Your task to perform on an android device: Search for bose soundlink mini on ebay, select the first entry, and add it to the cart. Image 0: 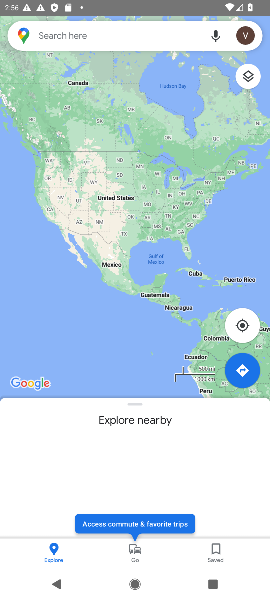
Step 0: press home button
Your task to perform on an android device: Search for bose soundlink mini on ebay, select the first entry, and add it to the cart. Image 1: 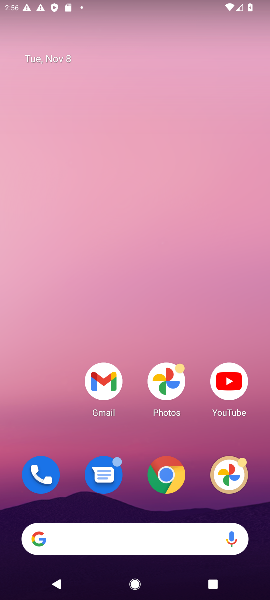
Step 1: drag from (107, 521) to (116, 28)
Your task to perform on an android device: Search for bose soundlink mini on ebay, select the first entry, and add it to the cart. Image 2: 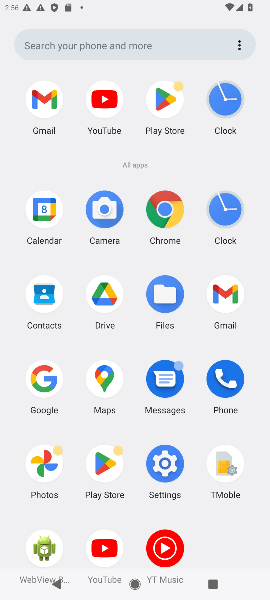
Step 2: click (45, 383)
Your task to perform on an android device: Search for bose soundlink mini on ebay, select the first entry, and add it to the cart. Image 3: 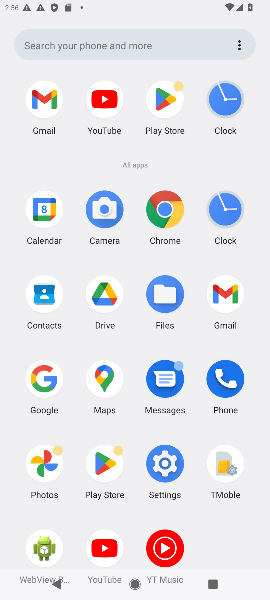
Step 3: click (45, 375)
Your task to perform on an android device: Search for bose soundlink mini on ebay, select the first entry, and add it to the cart. Image 4: 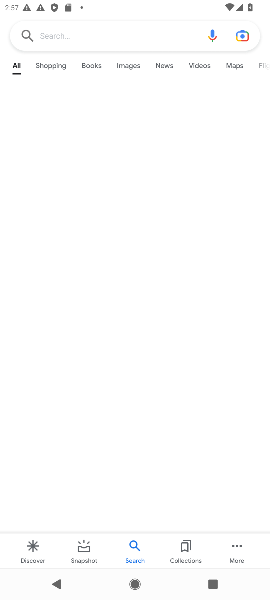
Step 4: click (90, 29)
Your task to perform on an android device: Search for bose soundlink mini on ebay, select the first entry, and add it to the cart. Image 5: 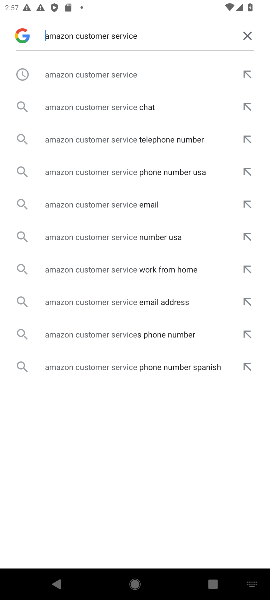
Step 5: type "ebay "
Your task to perform on an android device: Search for bose soundlink mini on ebay, select the first entry, and add it to the cart. Image 6: 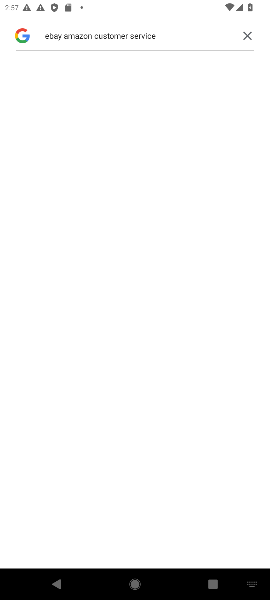
Step 6: click (248, 37)
Your task to perform on an android device: Search for bose soundlink mini on ebay, select the first entry, and add it to the cart. Image 7: 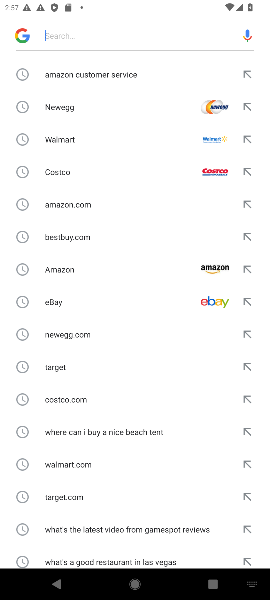
Step 7: click (95, 28)
Your task to perform on an android device: Search for bose soundlink mini on ebay, select the first entry, and add it to the cart. Image 8: 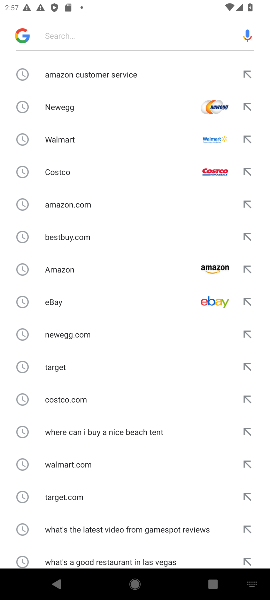
Step 8: type "ebay "
Your task to perform on an android device: Search for bose soundlink mini on ebay, select the first entry, and add it to the cart. Image 9: 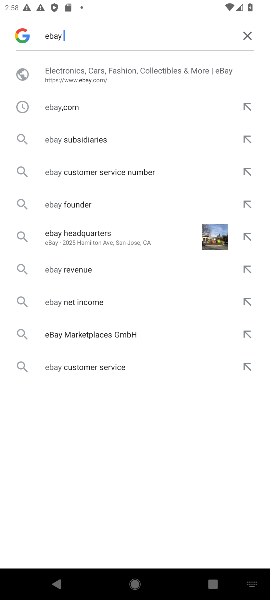
Step 9: click (64, 112)
Your task to perform on an android device: Search for bose soundlink mini on ebay, select the first entry, and add it to the cart. Image 10: 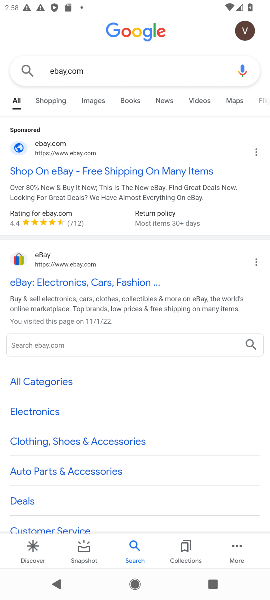
Step 10: click (15, 256)
Your task to perform on an android device: Search for bose soundlink mini on ebay, select the first entry, and add it to the cart. Image 11: 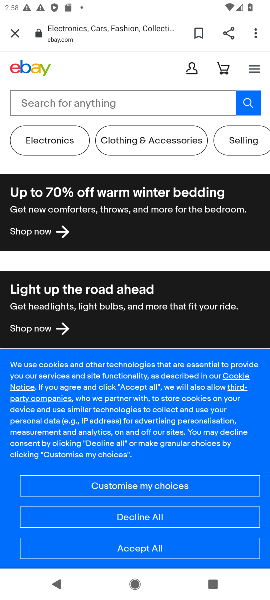
Step 11: click (154, 546)
Your task to perform on an android device: Search for bose soundlink mini on ebay, select the first entry, and add it to the cart. Image 12: 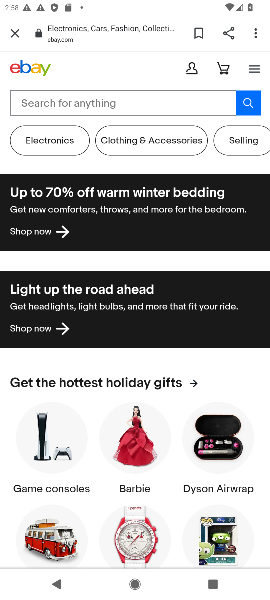
Step 12: click (127, 99)
Your task to perform on an android device: Search for bose soundlink mini on ebay, select the first entry, and add it to the cart. Image 13: 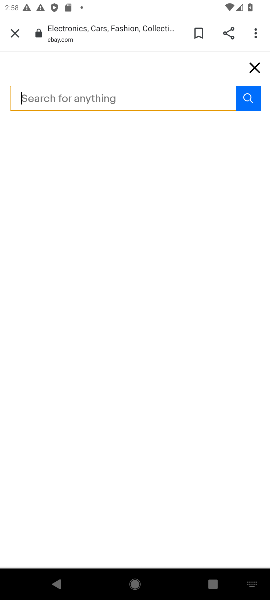
Step 13: type "bose soundlink mini on ebay "
Your task to perform on an android device: Search for bose soundlink mini on ebay, select the first entry, and add it to the cart. Image 14: 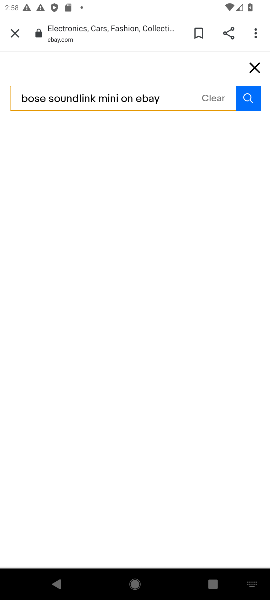
Step 14: click (249, 102)
Your task to perform on an android device: Search for bose soundlink mini on ebay, select the first entry, and add it to the cart. Image 15: 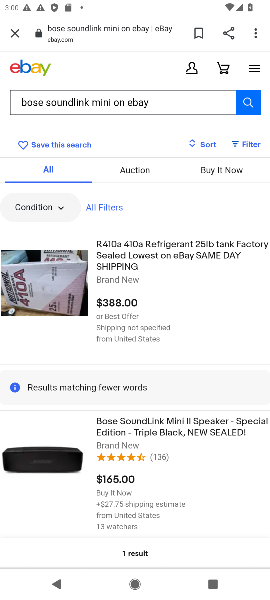
Step 15: click (131, 436)
Your task to perform on an android device: Search for bose soundlink mini on ebay, select the first entry, and add it to the cart. Image 16: 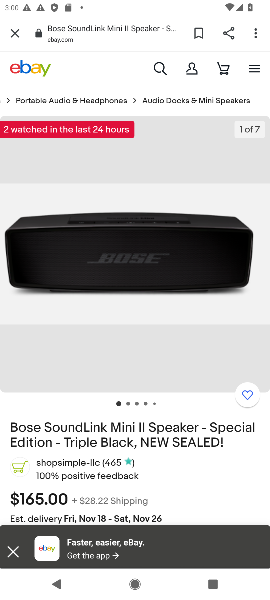
Step 16: drag from (113, 463) to (137, 155)
Your task to perform on an android device: Search for bose soundlink mini on ebay, select the first entry, and add it to the cart. Image 17: 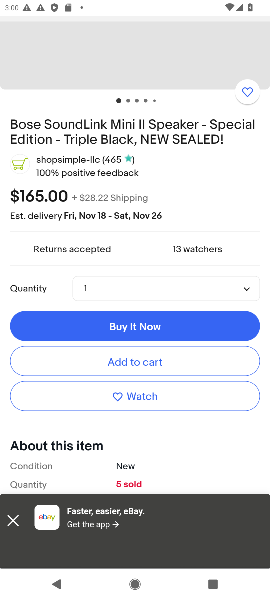
Step 17: click (146, 362)
Your task to perform on an android device: Search for bose soundlink mini on ebay, select the first entry, and add it to the cart. Image 18: 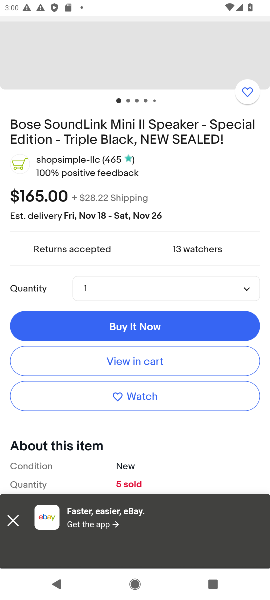
Step 18: click (141, 359)
Your task to perform on an android device: Search for bose soundlink mini on ebay, select the first entry, and add it to the cart. Image 19: 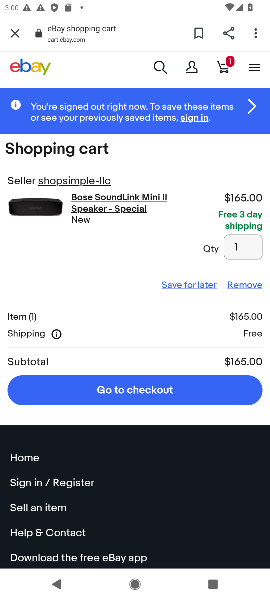
Step 19: task complete